Your task to perform on an android device: Open location settings Image 0: 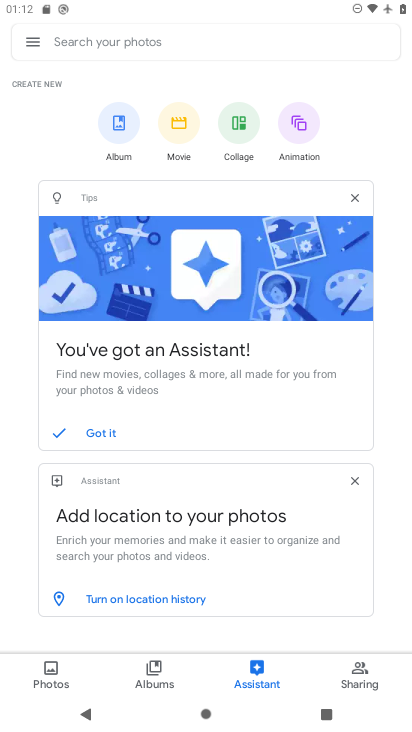
Step 0: press home button
Your task to perform on an android device: Open location settings Image 1: 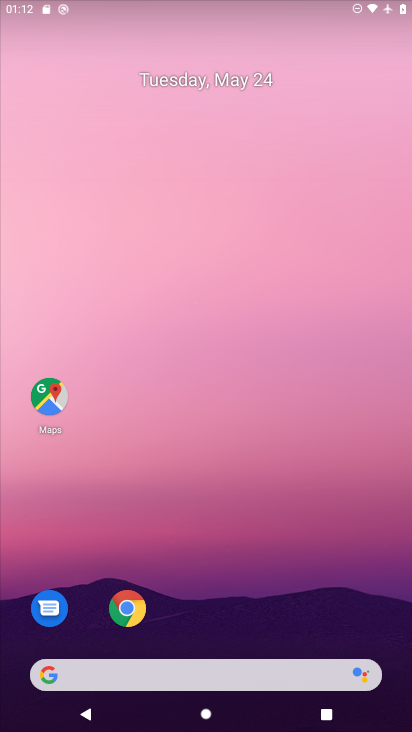
Step 1: drag from (266, 620) to (278, 66)
Your task to perform on an android device: Open location settings Image 2: 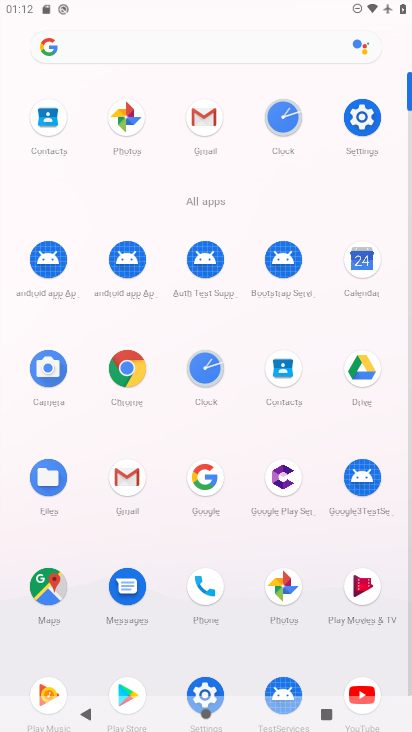
Step 2: click (354, 145)
Your task to perform on an android device: Open location settings Image 3: 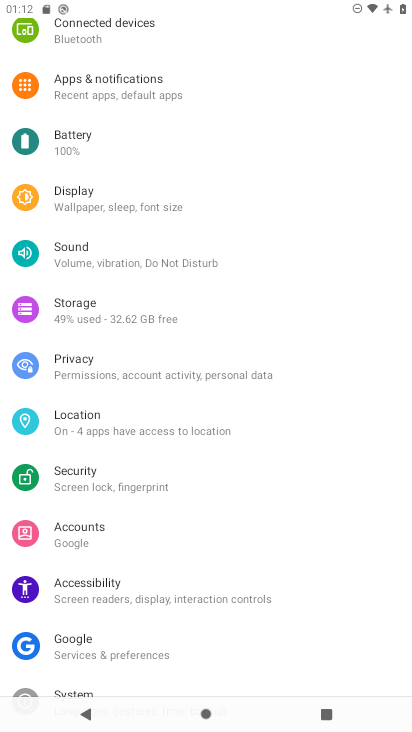
Step 3: click (158, 105)
Your task to perform on an android device: Open location settings Image 4: 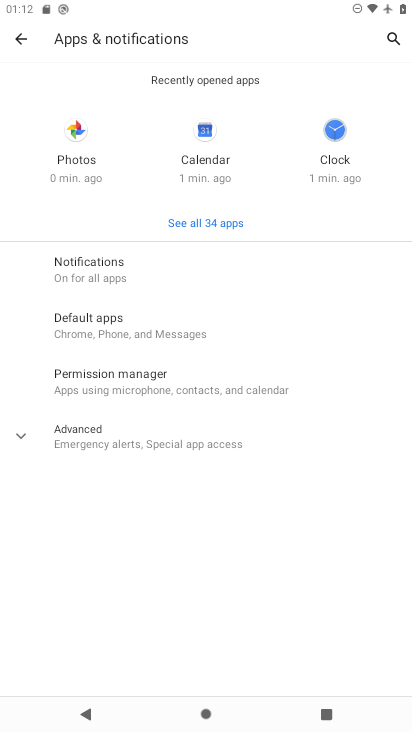
Step 4: task complete